Your task to perform on an android device: star an email in the gmail app Image 0: 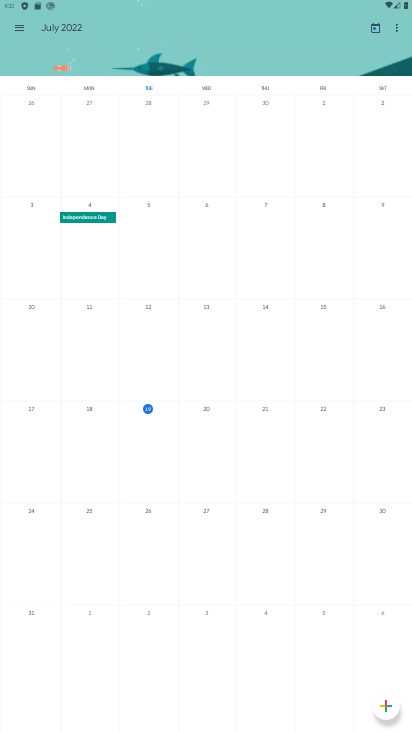
Step 0: press home button
Your task to perform on an android device: star an email in the gmail app Image 1: 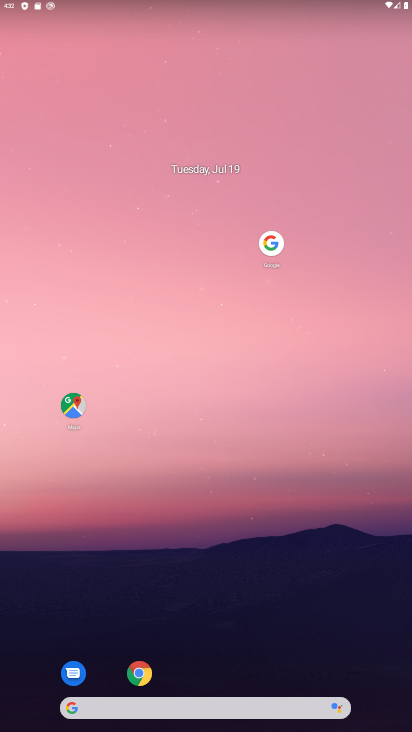
Step 1: drag from (239, 639) to (210, 33)
Your task to perform on an android device: star an email in the gmail app Image 2: 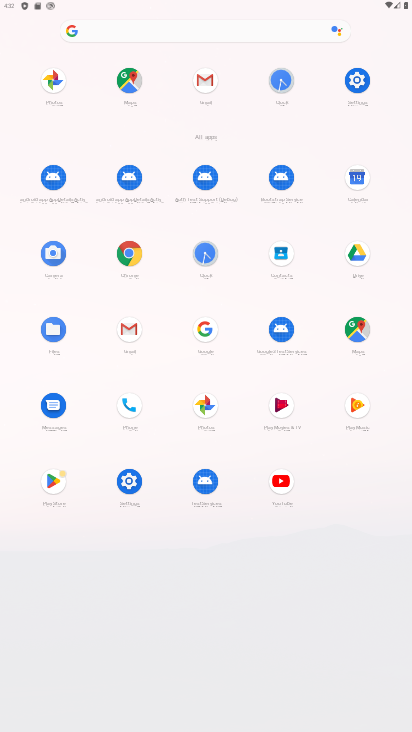
Step 2: click (205, 77)
Your task to perform on an android device: star an email in the gmail app Image 3: 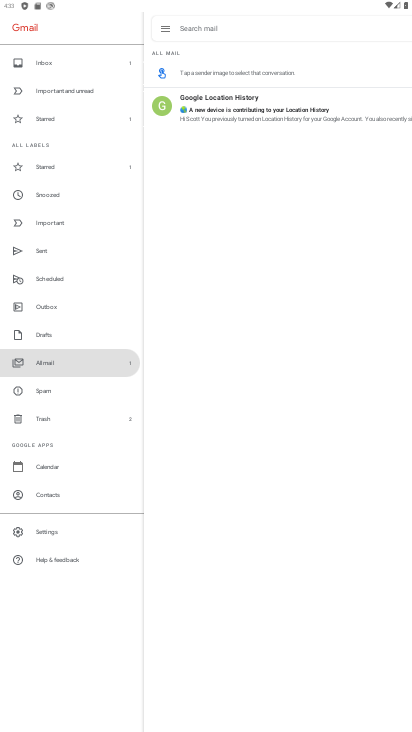
Step 3: click (234, 109)
Your task to perform on an android device: star an email in the gmail app Image 4: 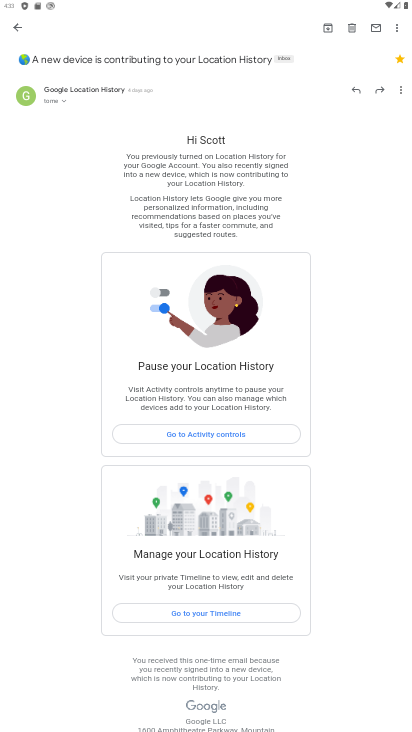
Step 4: task complete